Your task to perform on an android device: Go to Maps Image 0: 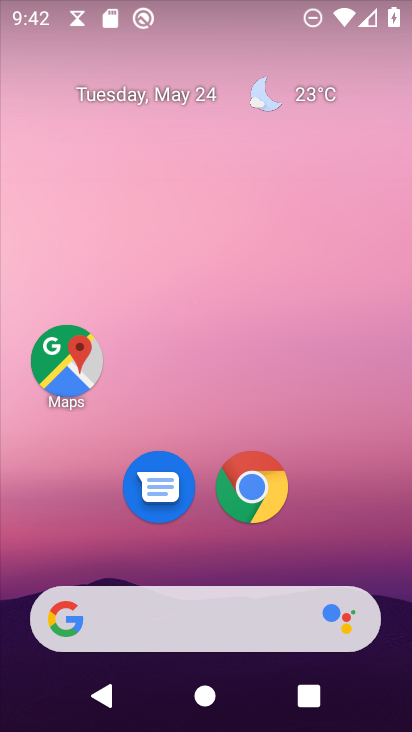
Step 0: press home button
Your task to perform on an android device: Go to Maps Image 1: 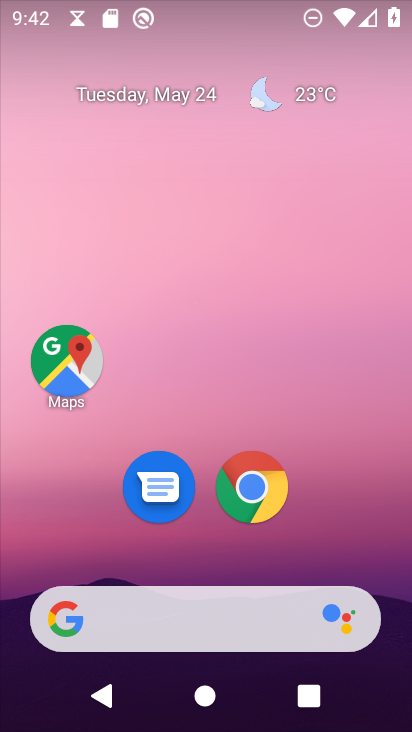
Step 1: click (73, 358)
Your task to perform on an android device: Go to Maps Image 2: 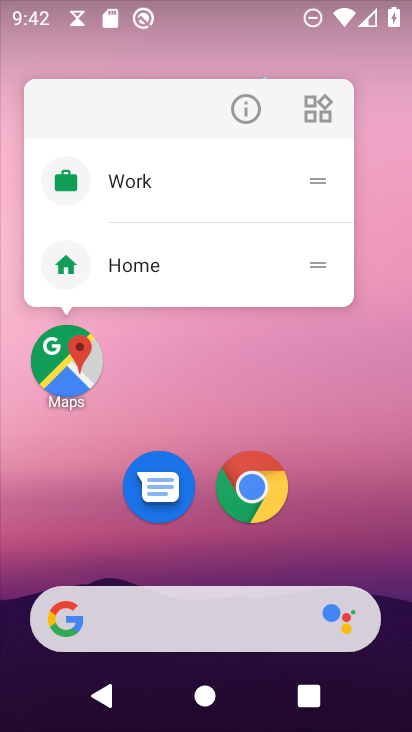
Step 2: click (71, 356)
Your task to perform on an android device: Go to Maps Image 3: 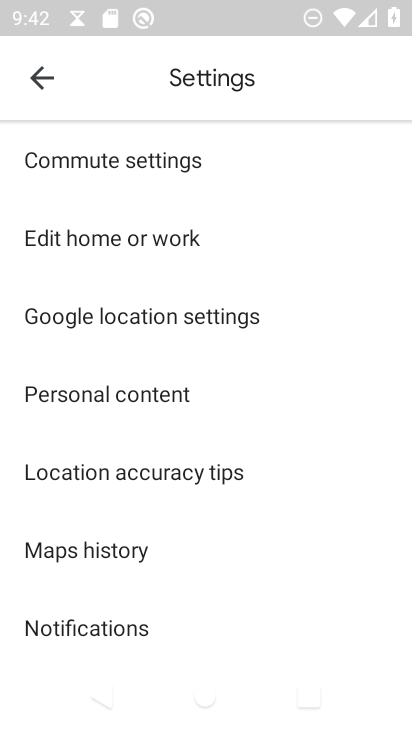
Step 3: click (48, 75)
Your task to perform on an android device: Go to Maps Image 4: 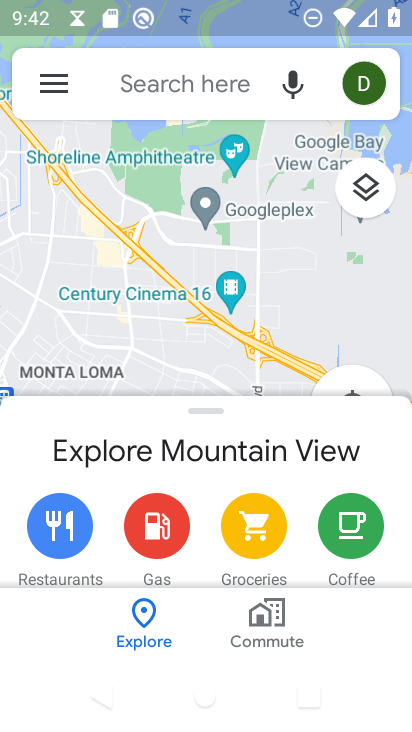
Step 4: task complete